Your task to perform on an android device: Go to accessibility settings Image 0: 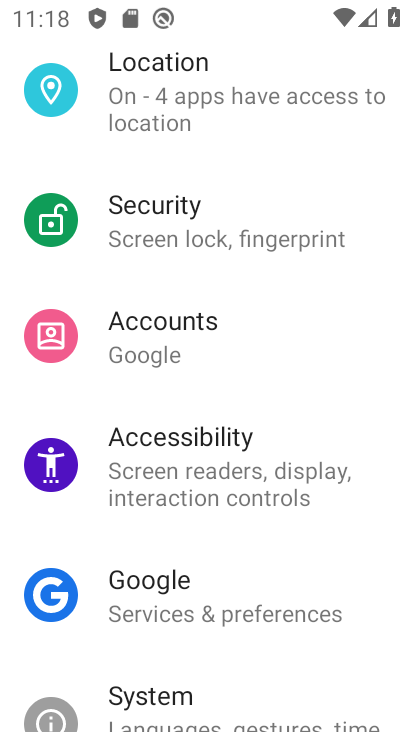
Step 0: press home button
Your task to perform on an android device: Go to accessibility settings Image 1: 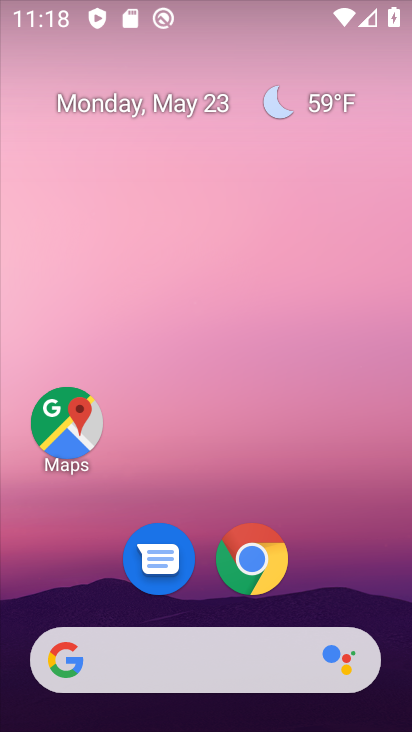
Step 1: drag from (390, 628) to (320, 43)
Your task to perform on an android device: Go to accessibility settings Image 2: 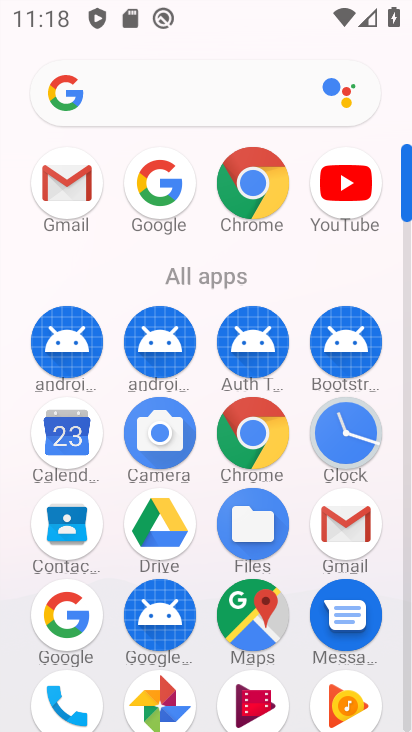
Step 2: drag from (212, 670) to (224, 197)
Your task to perform on an android device: Go to accessibility settings Image 3: 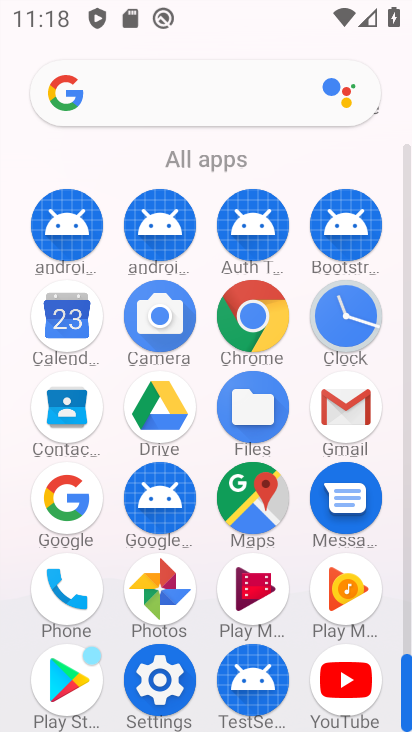
Step 3: click (166, 685)
Your task to perform on an android device: Go to accessibility settings Image 4: 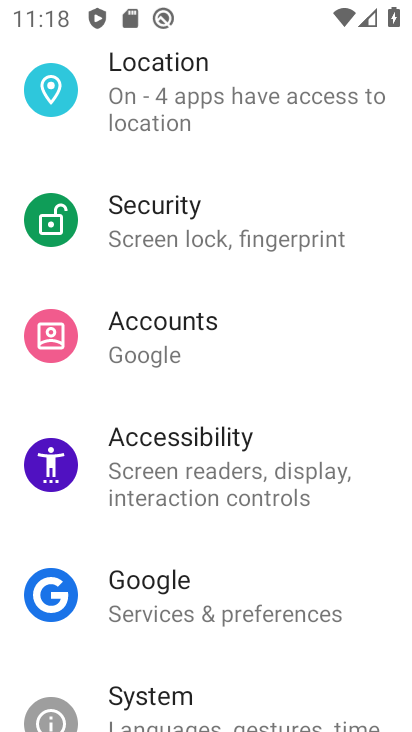
Step 4: click (186, 483)
Your task to perform on an android device: Go to accessibility settings Image 5: 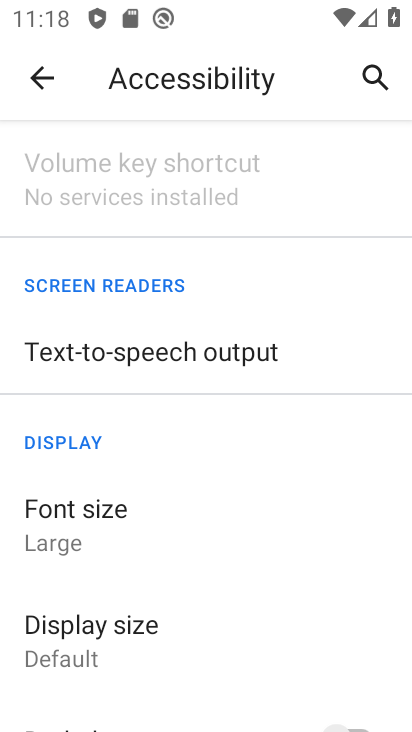
Step 5: task complete